Your task to perform on an android device: Go to sound settings Image 0: 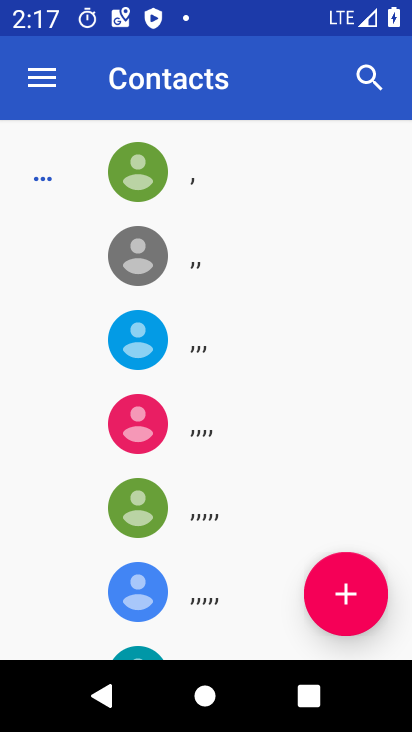
Step 0: press home button
Your task to perform on an android device: Go to sound settings Image 1: 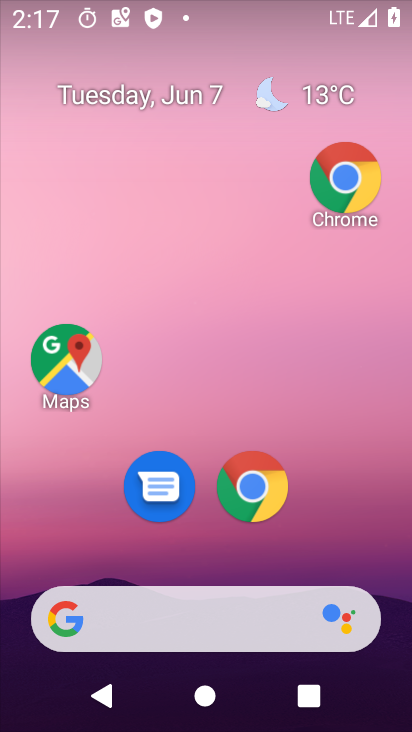
Step 1: drag from (91, 581) to (199, 145)
Your task to perform on an android device: Go to sound settings Image 2: 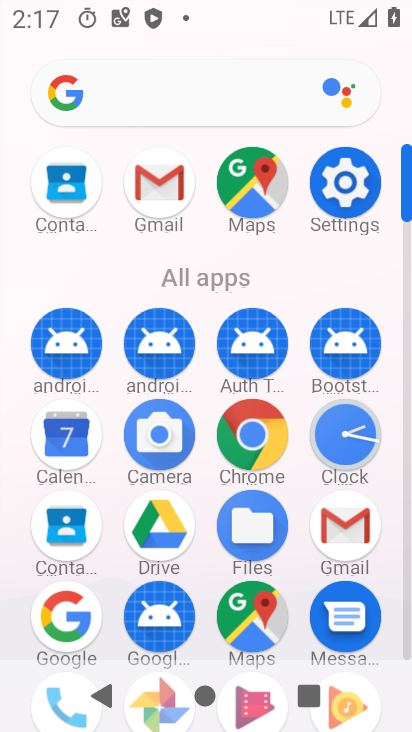
Step 2: drag from (128, 602) to (241, 267)
Your task to perform on an android device: Go to sound settings Image 3: 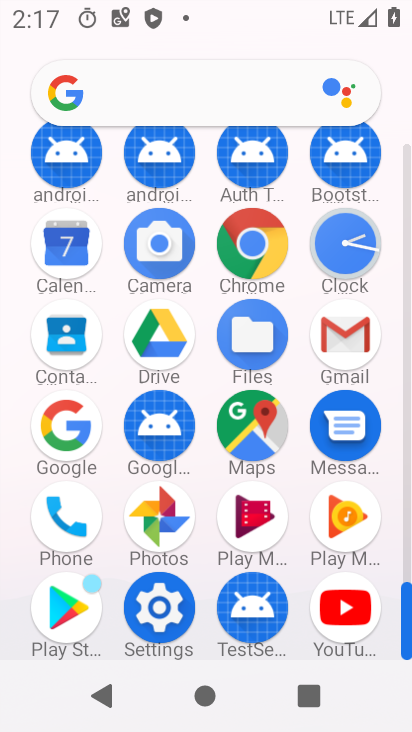
Step 3: click (163, 633)
Your task to perform on an android device: Go to sound settings Image 4: 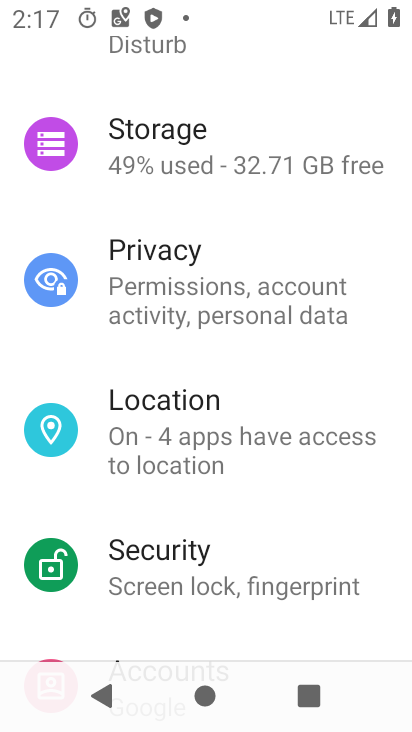
Step 4: drag from (215, 234) to (200, 673)
Your task to perform on an android device: Go to sound settings Image 5: 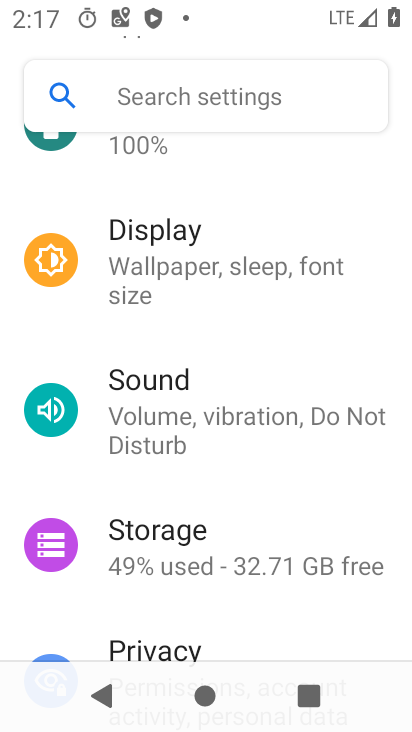
Step 5: click (175, 443)
Your task to perform on an android device: Go to sound settings Image 6: 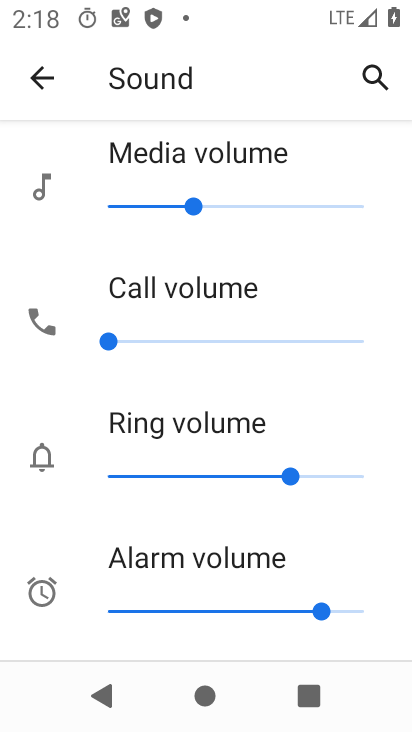
Step 6: task complete